Your task to perform on an android device: Add "razer deathadder" to the cart on newegg, then select checkout. Image 0: 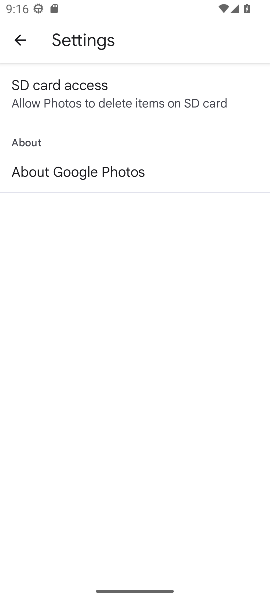
Step 0: press home button
Your task to perform on an android device: Add "razer deathadder" to the cart on newegg, then select checkout. Image 1: 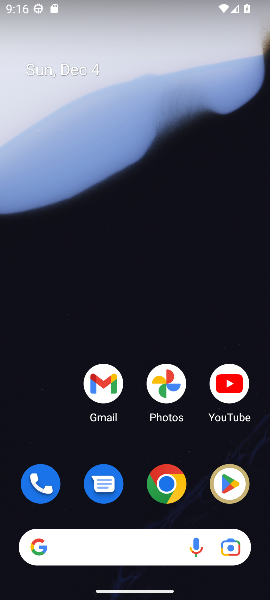
Step 1: click (168, 488)
Your task to perform on an android device: Add "razer deathadder" to the cart on newegg, then select checkout. Image 2: 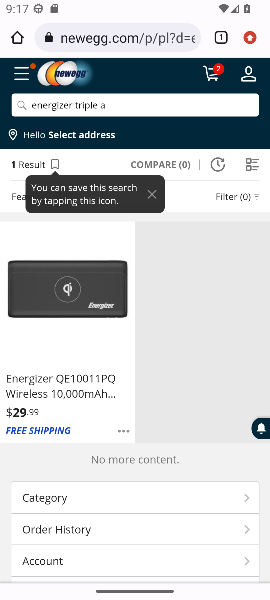
Step 2: click (107, 104)
Your task to perform on an android device: Add "razer deathadder" to the cart on newegg, then select checkout. Image 3: 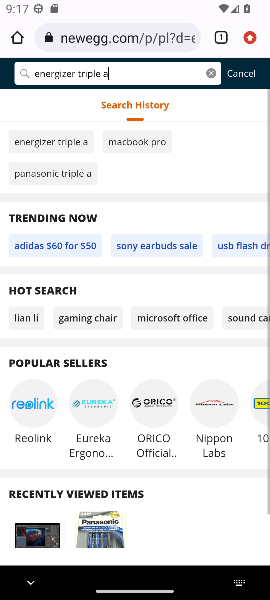
Step 3: click (208, 71)
Your task to perform on an android device: Add "razer deathadder" to the cart on newegg, then select checkout. Image 4: 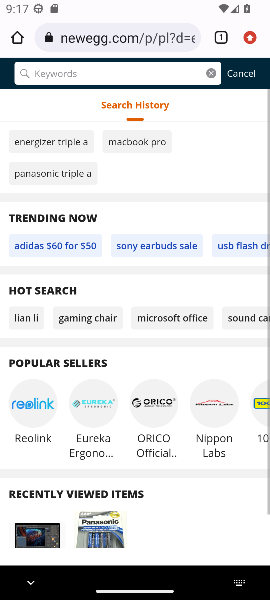
Step 4: type "razer deathadder"
Your task to perform on an android device: Add "razer deathadder" to the cart on newegg, then select checkout. Image 5: 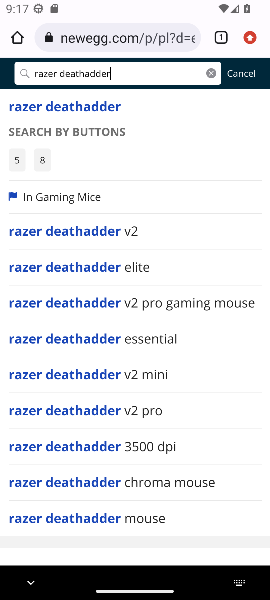
Step 5: click (81, 110)
Your task to perform on an android device: Add "razer deathadder" to the cart on newegg, then select checkout. Image 6: 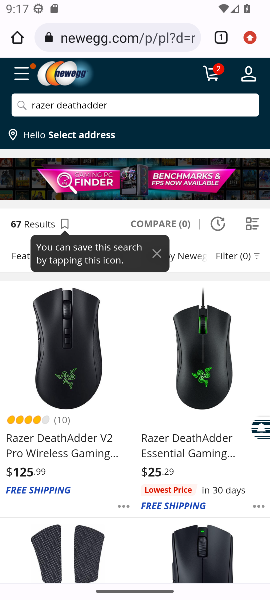
Step 6: click (58, 402)
Your task to perform on an android device: Add "razer deathadder" to the cart on newegg, then select checkout. Image 7: 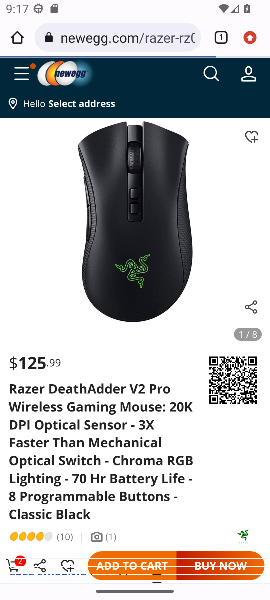
Step 7: click (137, 564)
Your task to perform on an android device: Add "razer deathadder" to the cart on newegg, then select checkout. Image 8: 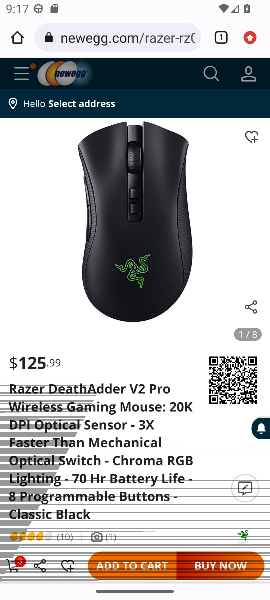
Step 8: click (17, 566)
Your task to perform on an android device: Add "razer deathadder" to the cart on newegg, then select checkout. Image 9: 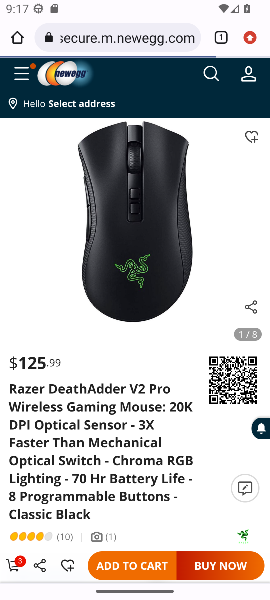
Step 9: click (18, 565)
Your task to perform on an android device: Add "razer deathadder" to the cart on newegg, then select checkout. Image 10: 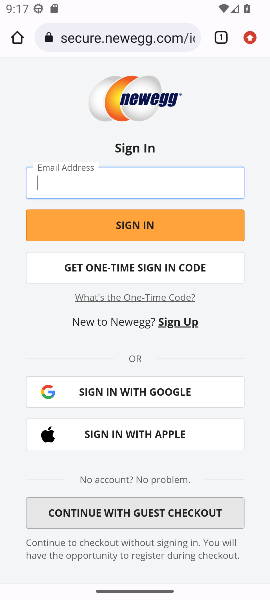
Step 10: task complete